Your task to perform on an android device: move a message to another label in the gmail app Image 0: 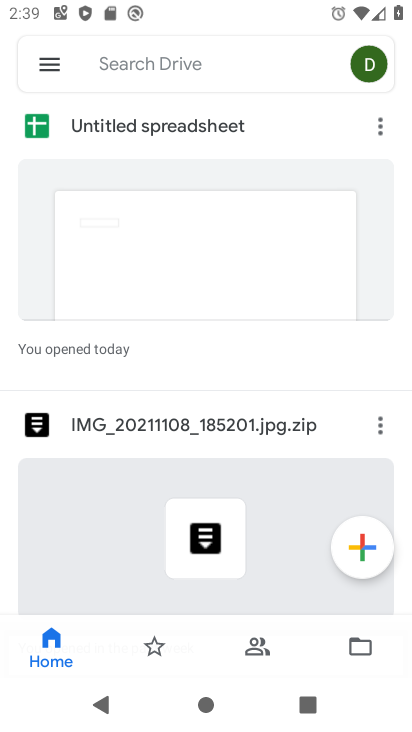
Step 0: press home button
Your task to perform on an android device: move a message to another label in the gmail app Image 1: 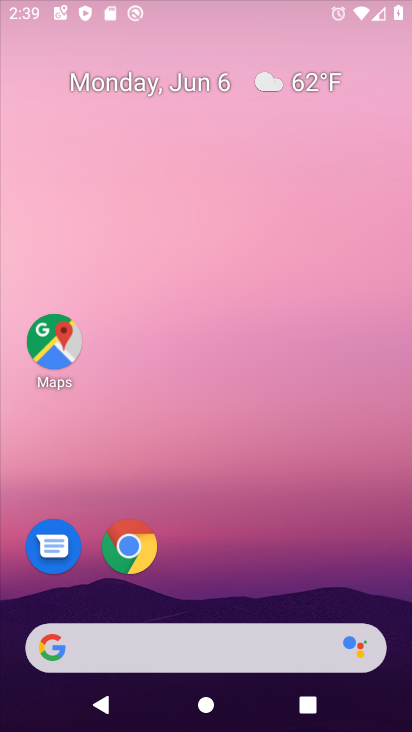
Step 1: click (205, 224)
Your task to perform on an android device: move a message to another label in the gmail app Image 2: 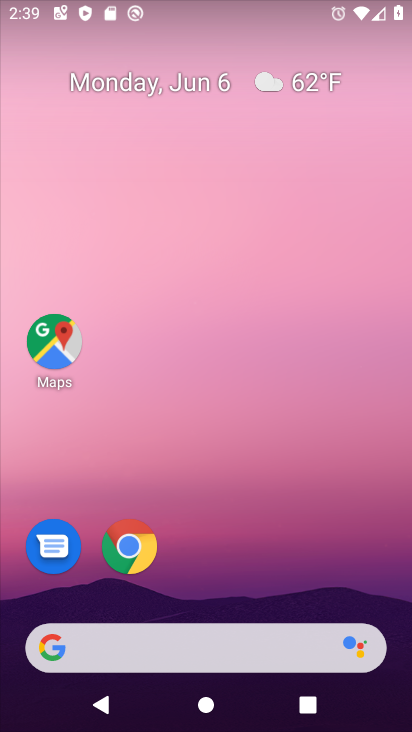
Step 2: drag from (225, 584) to (248, 146)
Your task to perform on an android device: move a message to another label in the gmail app Image 3: 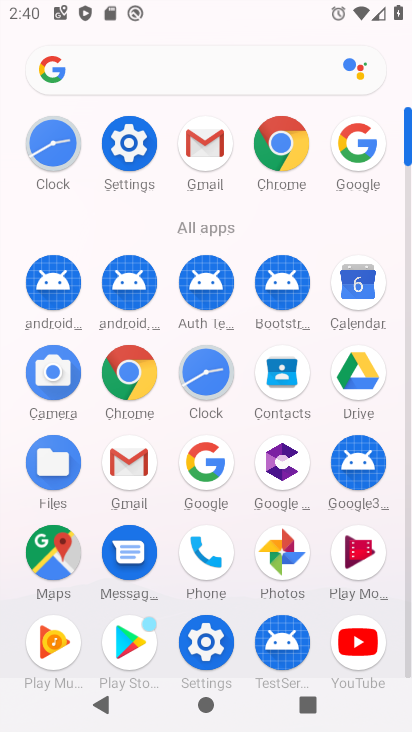
Step 3: click (213, 153)
Your task to perform on an android device: move a message to another label in the gmail app Image 4: 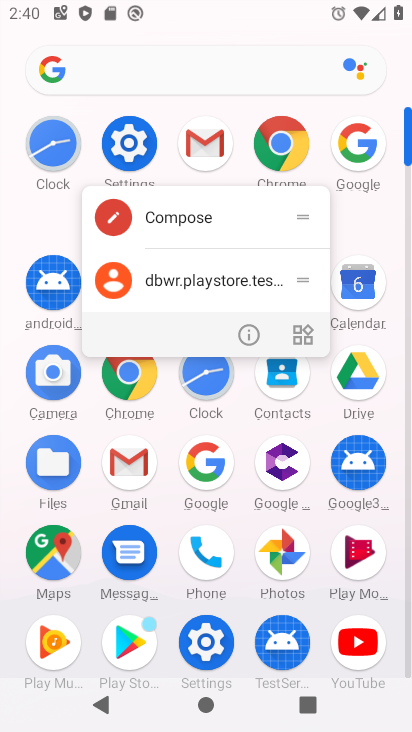
Step 4: click (213, 153)
Your task to perform on an android device: move a message to another label in the gmail app Image 5: 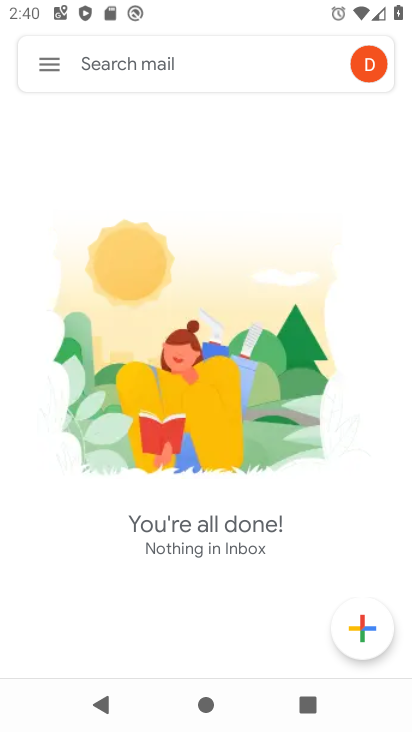
Step 5: click (37, 80)
Your task to perform on an android device: move a message to another label in the gmail app Image 6: 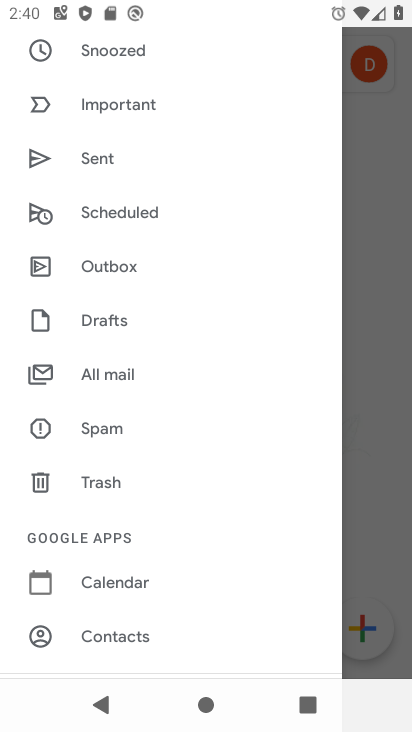
Step 6: click (117, 387)
Your task to perform on an android device: move a message to another label in the gmail app Image 7: 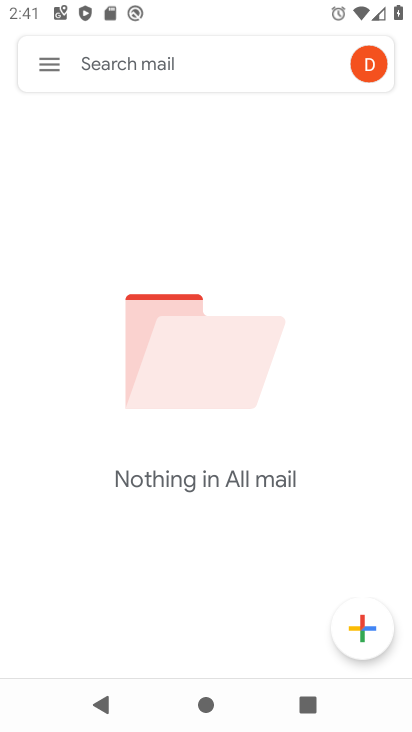
Step 7: click (48, 71)
Your task to perform on an android device: move a message to another label in the gmail app Image 8: 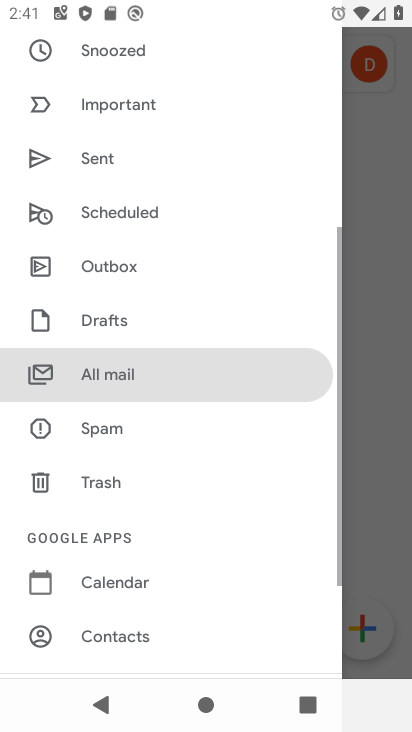
Step 8: click (162, 389)
Your task to perform on an android device: move a message to another label in the gmail app Image 9: 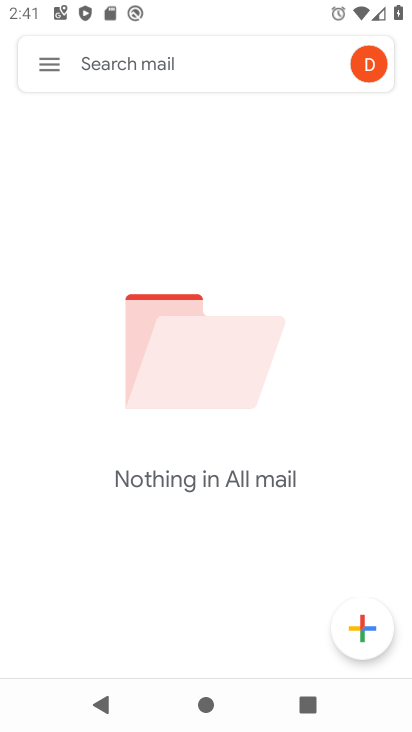
Step 9: task complete